Your task to perform on an android device: create a new album in the google photos Image 0: 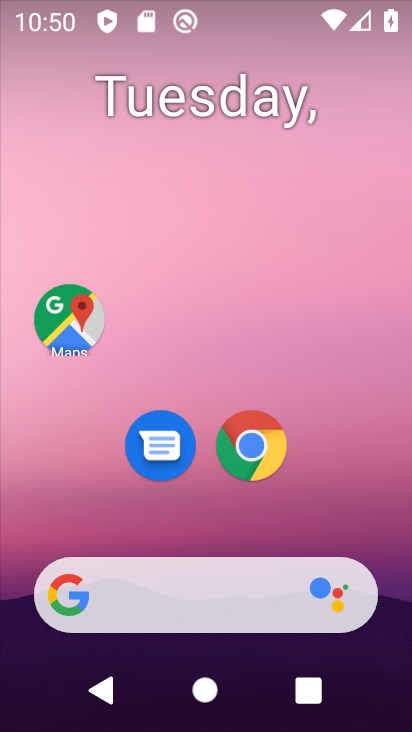
Step 0: drag from (387, 389) to (370, 91)
Your task to perform on an android device: create a new album in the google photos Image 1: 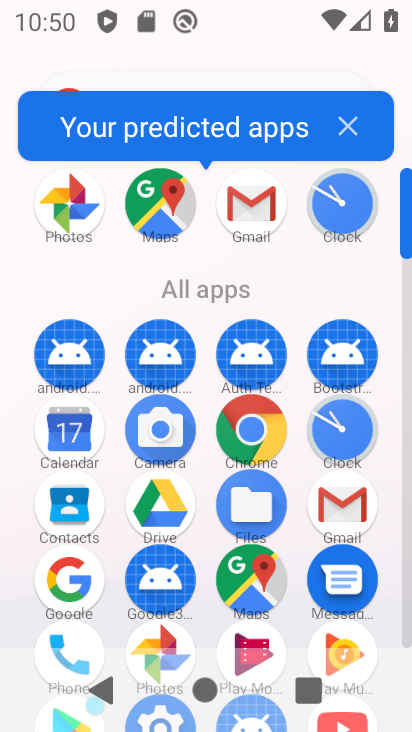
Step 1: drag from (381, 541) to (354, 263)
Your task to perform on an android device: create a new album in the google photos Image 2: 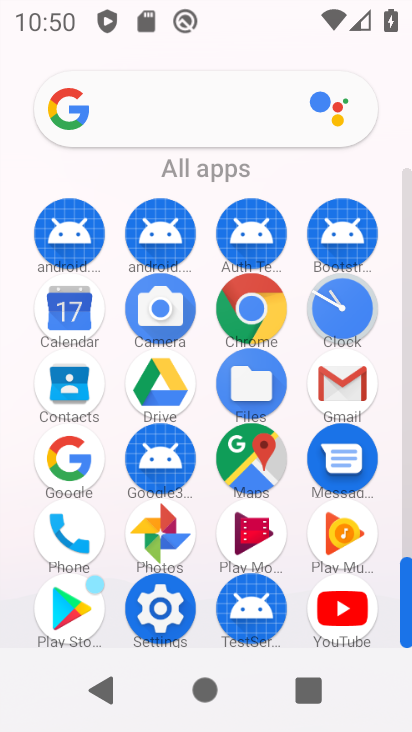
Step 2: click (155, 538)
Your task to perform on an android device: create a new album in the google photos Image 3: 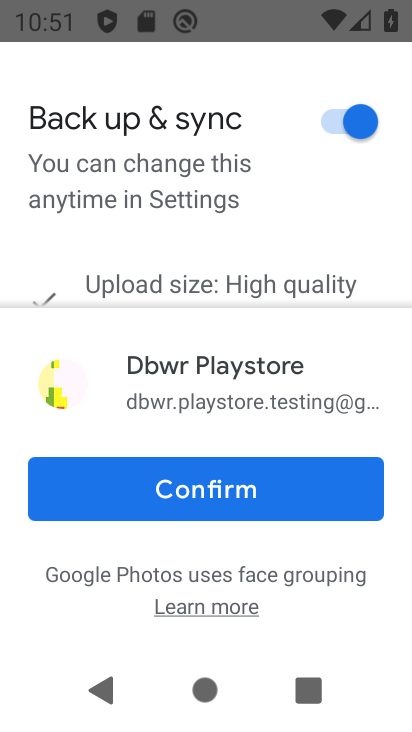
Step 3: click (211, 501)
Your task to perform on an android device: create a new album in the google photos Image 4: 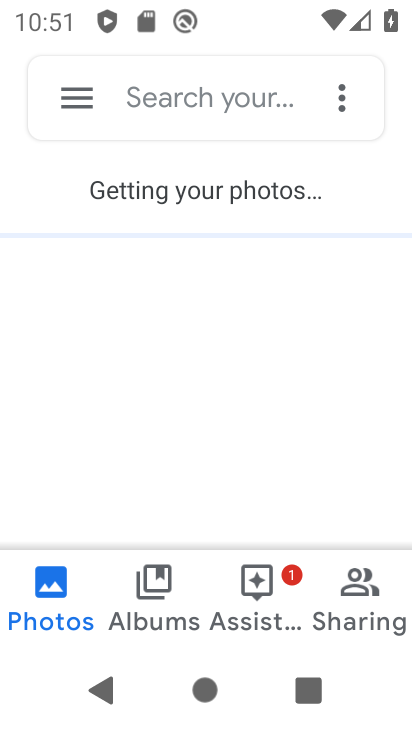
Step 4: click (157, 601)
Your task to perform on an android device: create a new album in the google photos Image 5: 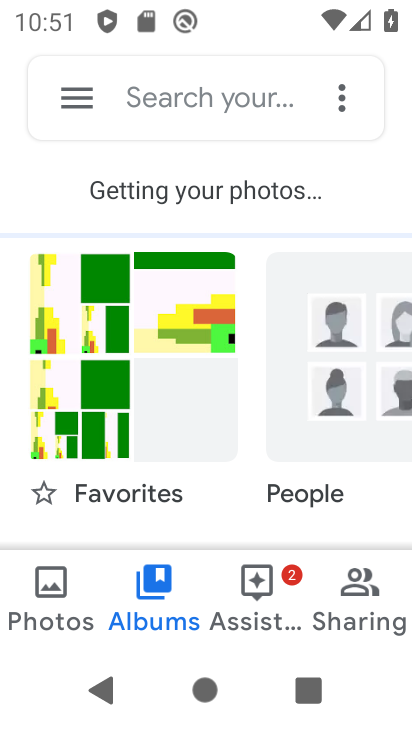
Step 5: drag from (242, 490) to (248, 199)
Your task to perform on an android device: create a new album in the google photos Image 6: 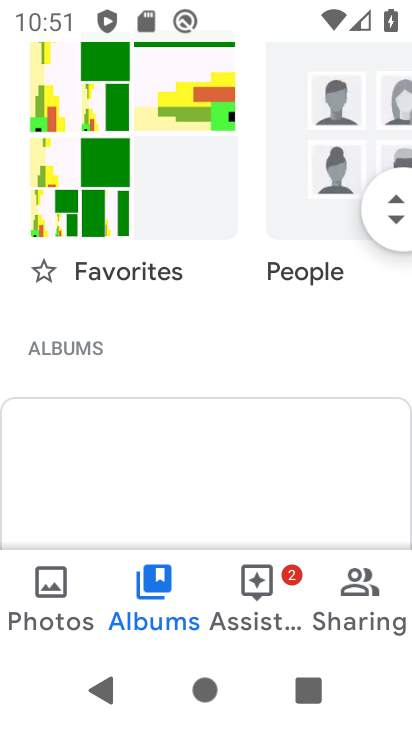
Step 6: drag from (228, 461) to (238, 257)
Your task to perform on an android device: create a new album in the google photos Image 7: 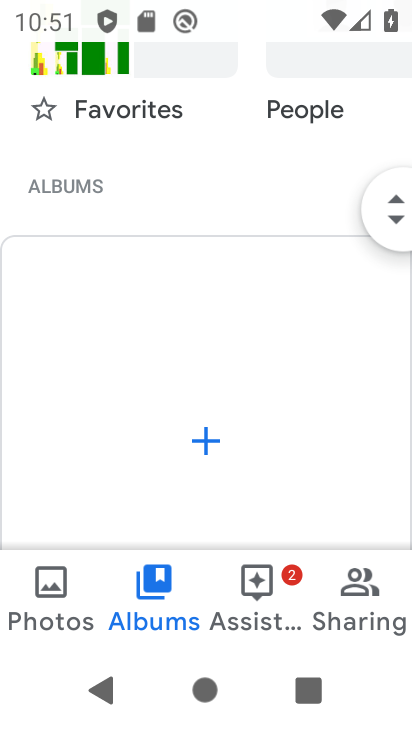
Step 7: drag from (286, 413) to (252, 178)
Your task to perform on an android device: create a new album in the google photos Image 8: 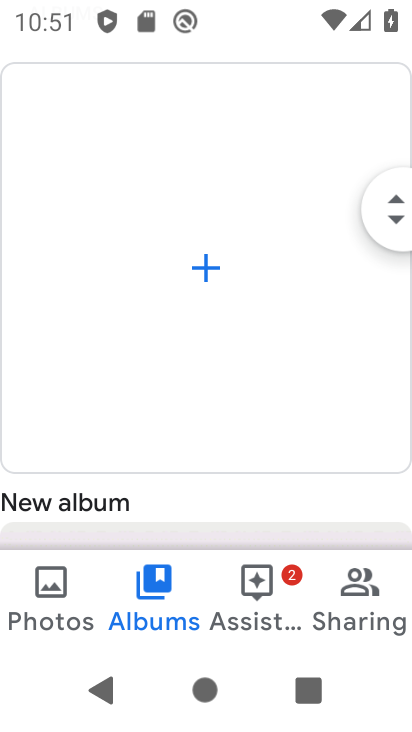
Step 8: drag from (241, 393) to (240, 208)
Your task to perform on an android device: create a new album in the google photos Image 9: 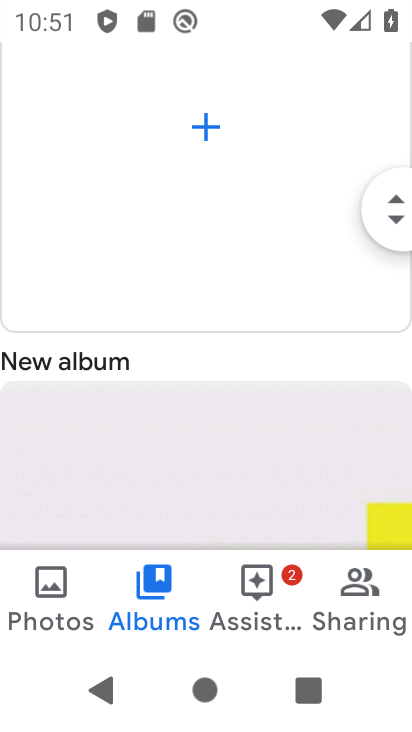
Step 9: click (87, 362)
Your task to perform on an android device: create a new album in the google photos Image 10: 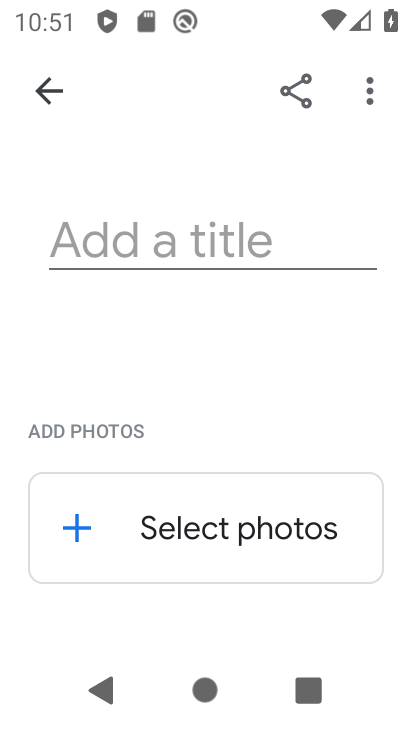
Step 10: click (204, 247)
Your task to perform on an android device: create a new album in the google photos Image 11: 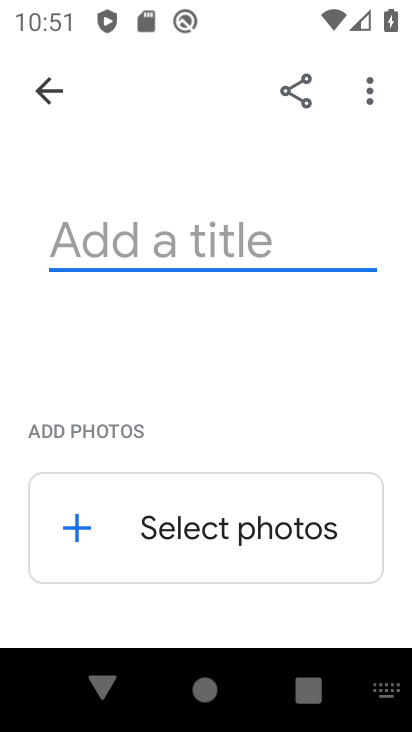
Step 11: type "fav"
Your task to perform on an android device: create a new album in the google photos Image 12: 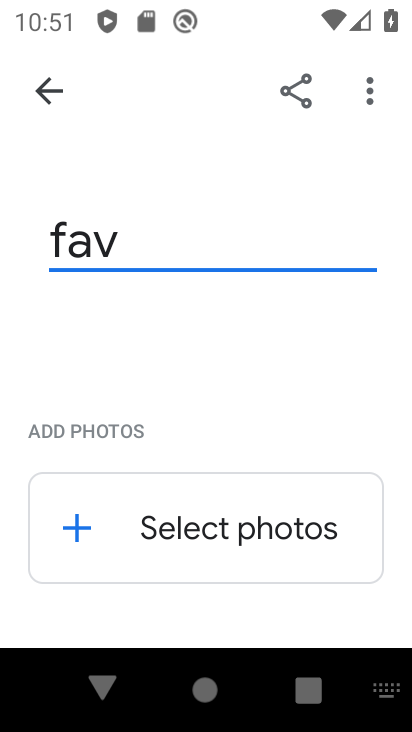
Step 12: click (236, 524)
Your task to perform on an android device: create a new album in the google photos Image 13: 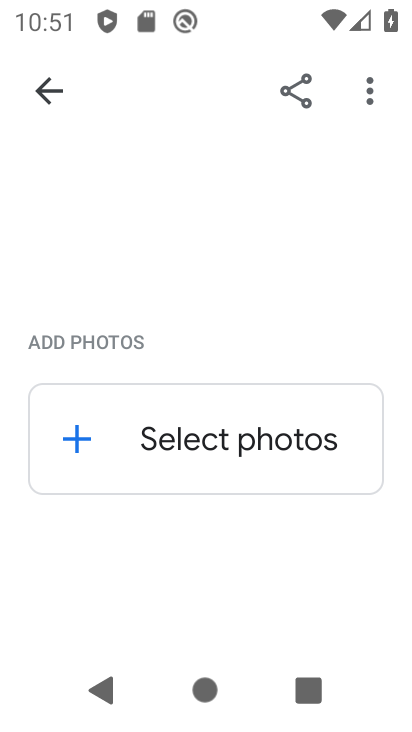
Step 13: click (93, 446)
Your task to perform on an android device: create a new album in the google photos Image 14: 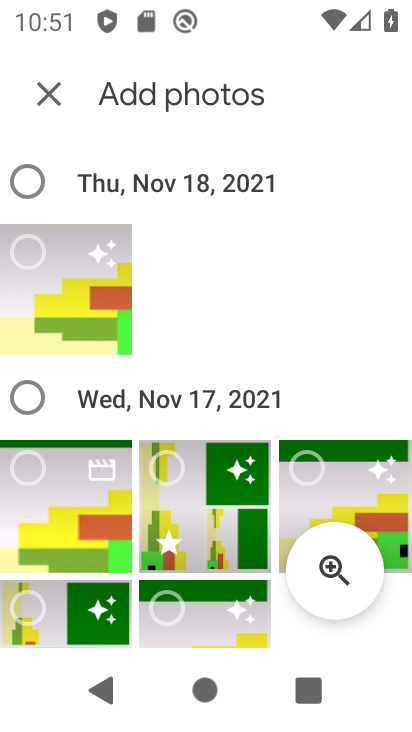
Step 14: click (69, 311)
Your task to perform on an android device: create a new album in the google photos Image 15: 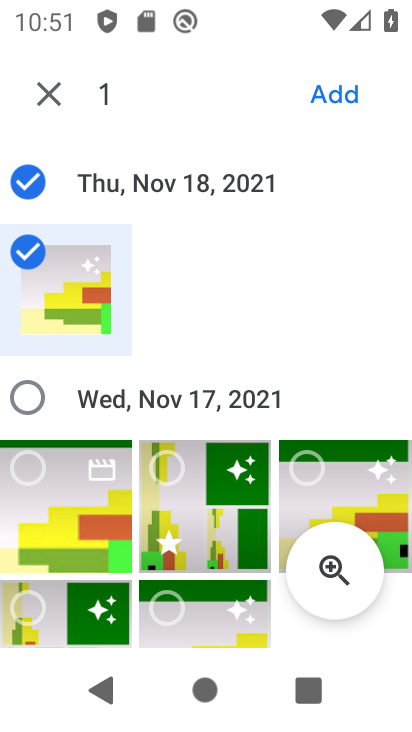
Step 15: click (326, 87)
Your task to perform on an android device: create a new album in the google photos Image 16: 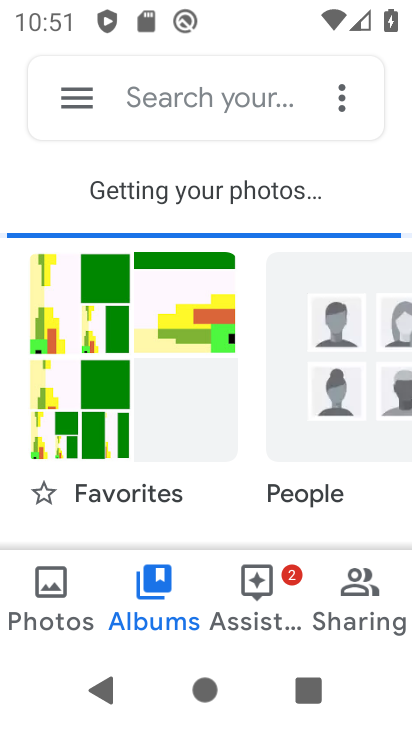
Step 16: task complete